Your task to perform on an android device: open device folders in google photos Image 0: 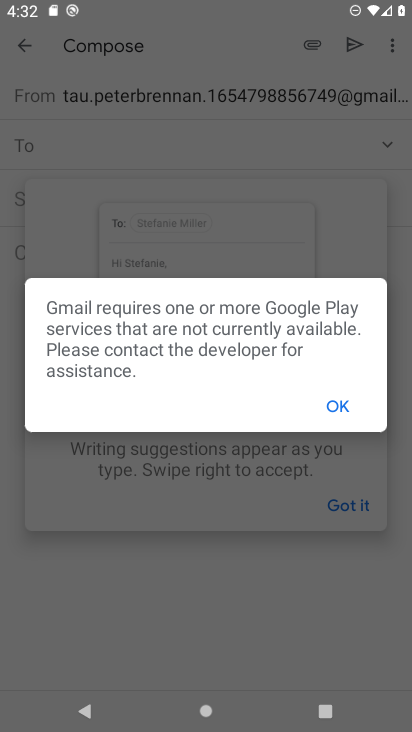
Step 0: press home button
Your task to perform on an android device: open device folders in google photos Image 1: 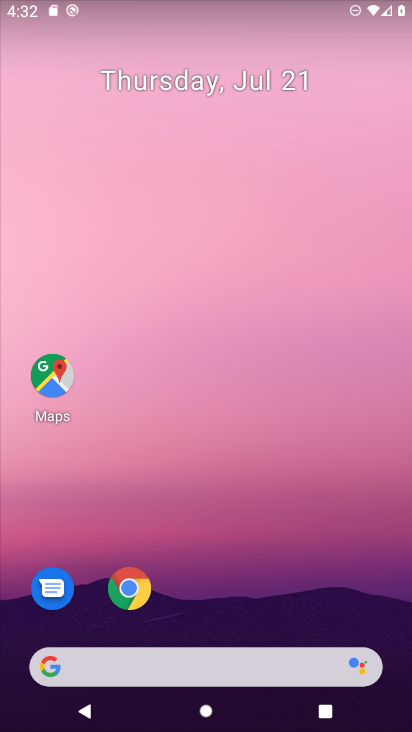
Step 1: drag from (211, 653) to (235, 174)
Your task to perform on an android device: open device folders in google photos Image 2: 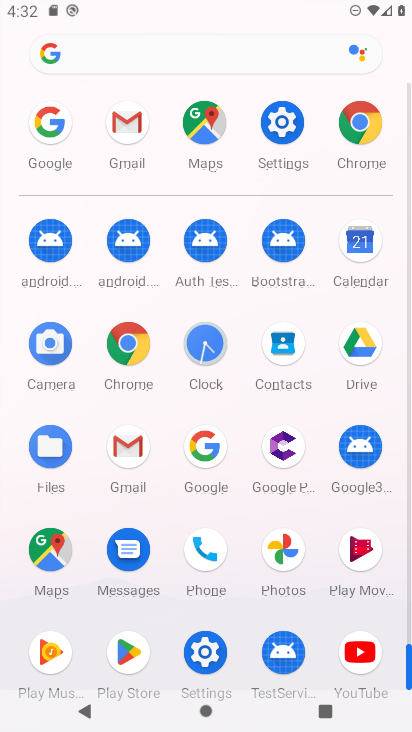
Step 2: drag from (189, 532) to (206, 237)
Your task to perform on an android device: open device folders in google photos Image 3: 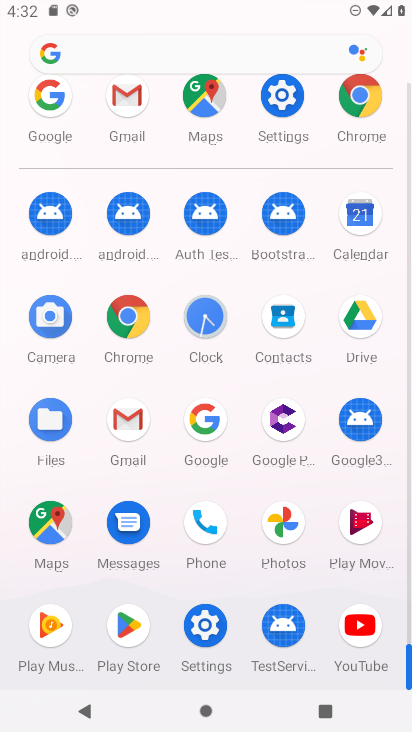
Step 3: click (280, 533)
Your task to perform on an android device: open device folders in google photos Image 4: 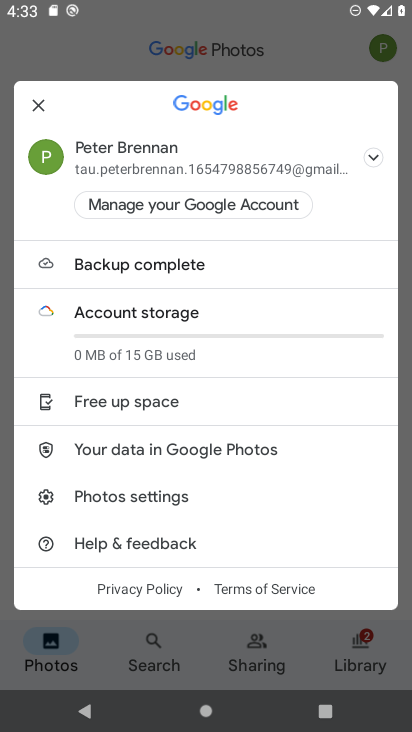
Step 4: task complete